Your task to perform on an android device: Check the weather Image 0: 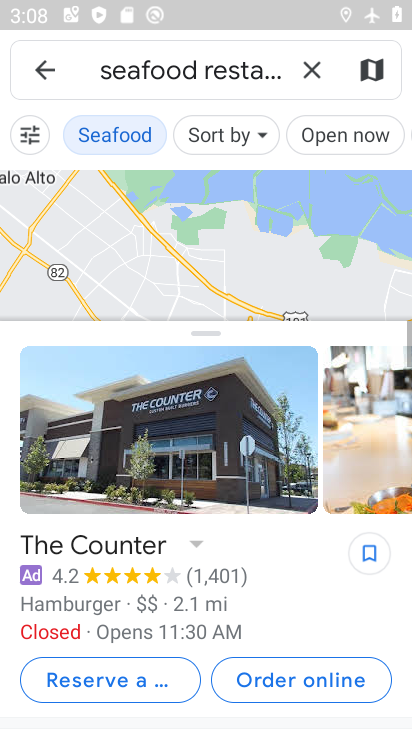
Step 0: press home button
Your task to perform on an android device: Check the weather Image 1: 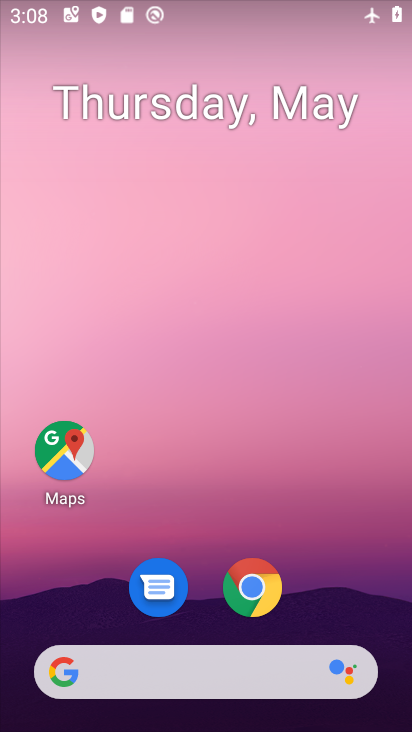
Step 1: drag from (230, 627) to (313, 166)
Your task to perform on an android device: Check the weather Image 2: 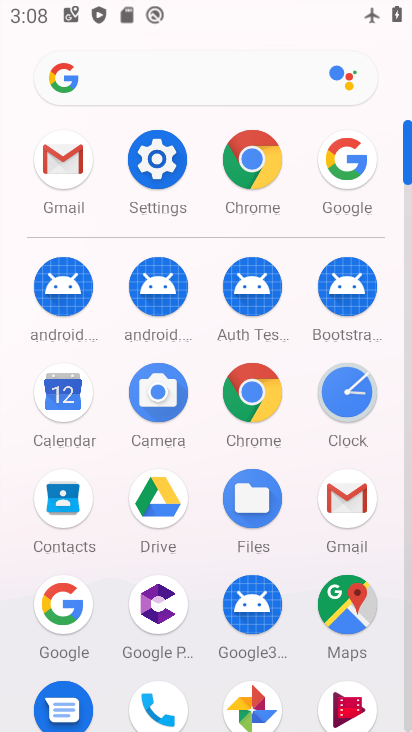
Step 2: drag from (220, 568) to (253, 362)
Your task to perform on an android device: Check the weather Image 3: 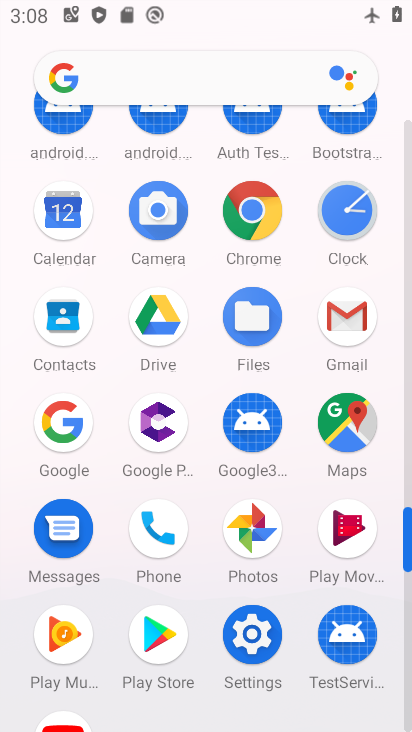
Step 3: click (74, 445)
Your task to perform on an android device: Check the weather Image 4: 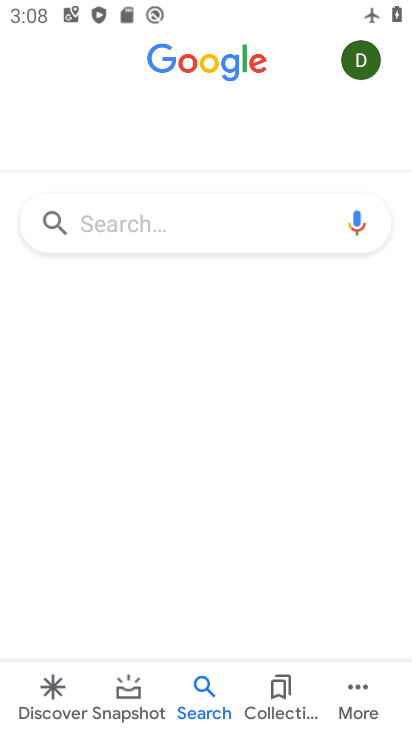
Step 4: click (160, 234)
Your task to perform on an android device: Check the weather Image 5: 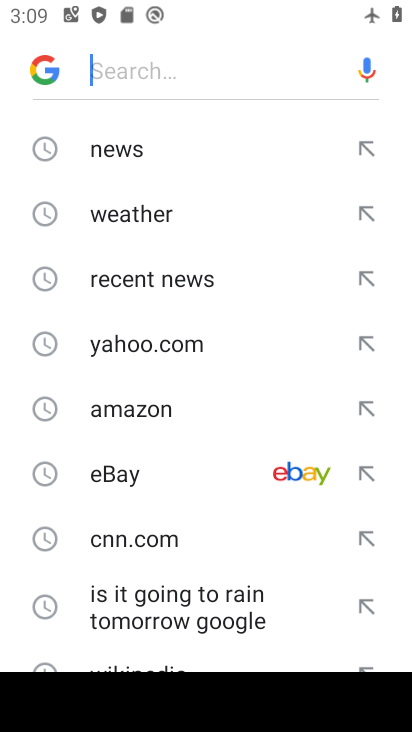
Step 5: click (162, 216)
Your task to perform on an android device: Check the weather Image 6: 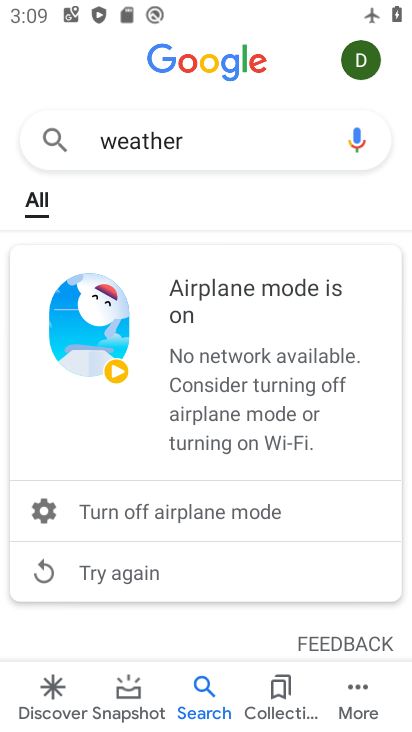
Step 6: task complete